Your task to perform on an android device: change the upload size in google photos Image 0: 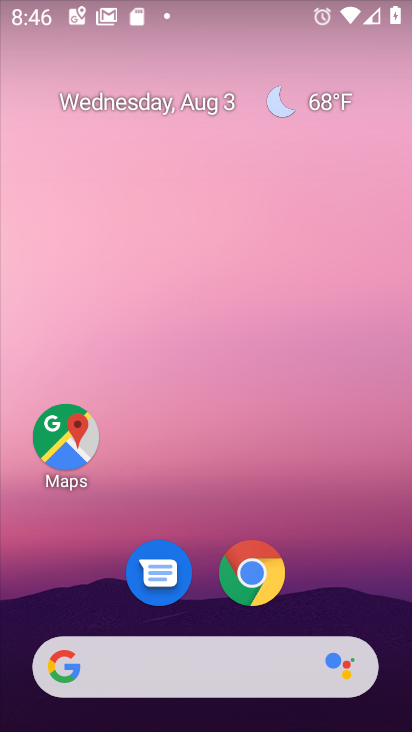
Step 0: drag from (341, 610) to (333, 1)
Your task to perform on an android device: change the upload size in google photos Image 1: 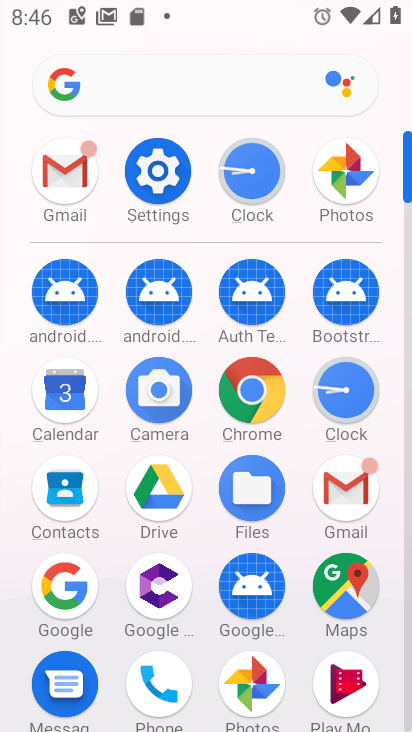
Step 1: click (344, 178)
Your task to perform on an android device: change the upload size in google photos Image 2: 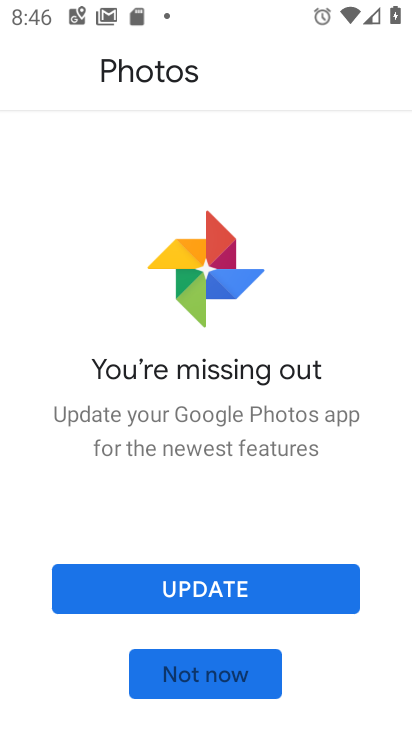
Step 2: click (205, 675)
Your task to perform on an android device: change the upload size in google photos Image 3: 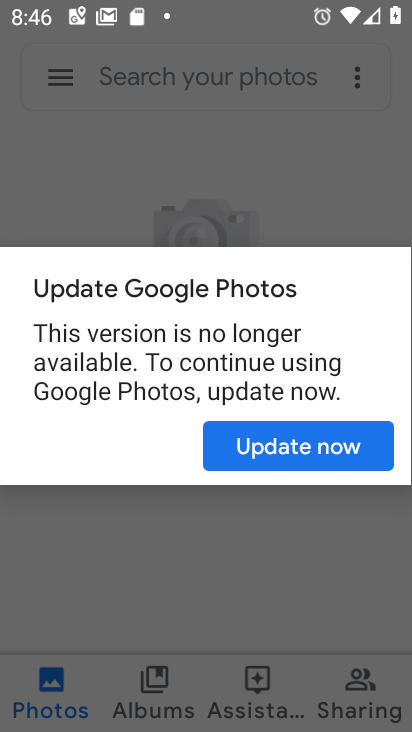
Step 3: click (279, 452)
Your task to perform on an android device: change the upload size in google photos Image 4: 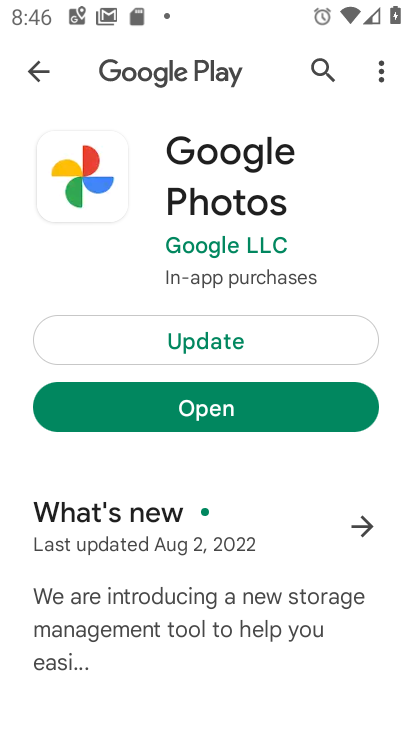
Step 4: click (218, 417)
Your task to perform on an android device: change the upload size in google photos Image 5: 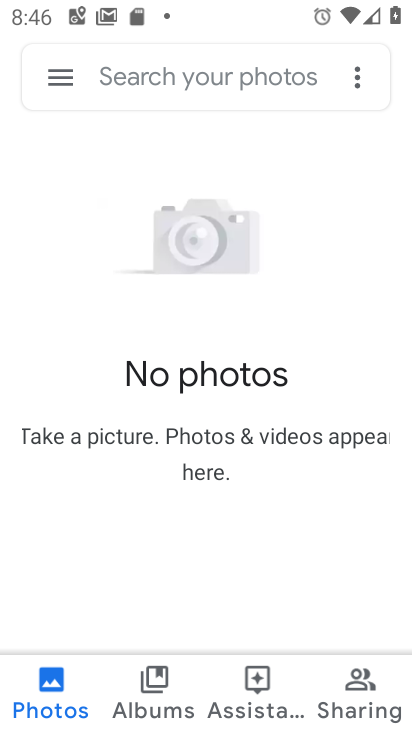
Step 5: click (61, 81)
Your task to perform on an android device: change the upload size in google photos Image 6: 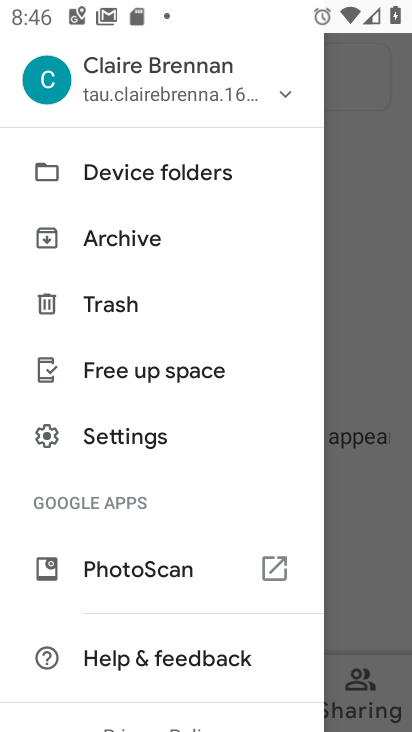
Step 6: click (128, 436)
Your task to perform on an android device: change the upload size in google photos Image 7: 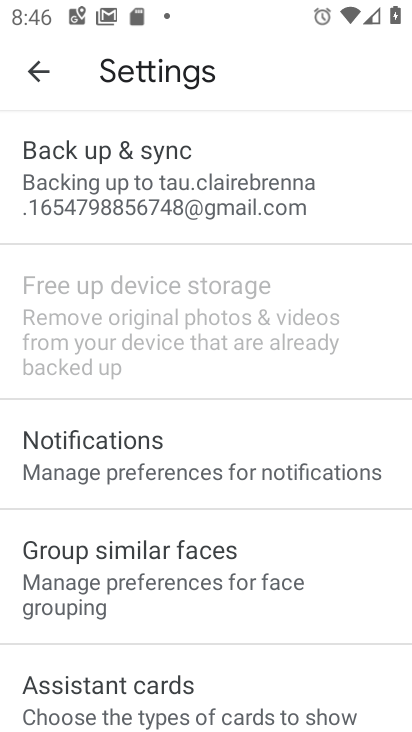
Step 7: click (114, 196)
Your task to perform on an android device: change the upload size in google photos Image 8: 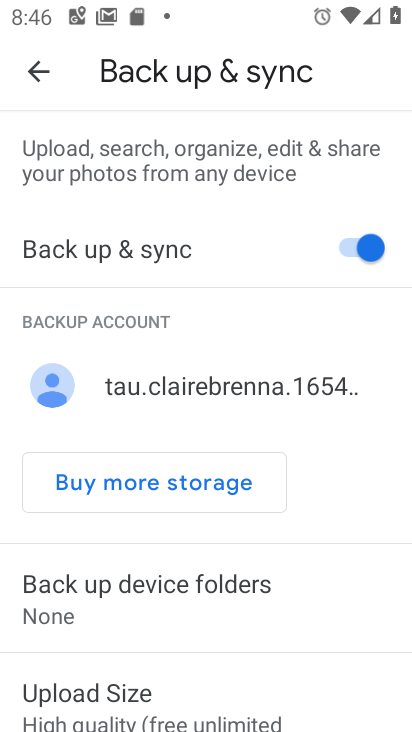
Step 8: drag from (305, 600) to (298, 317)
Your task to perform on an android device: change the upload size in google photos Image 9: 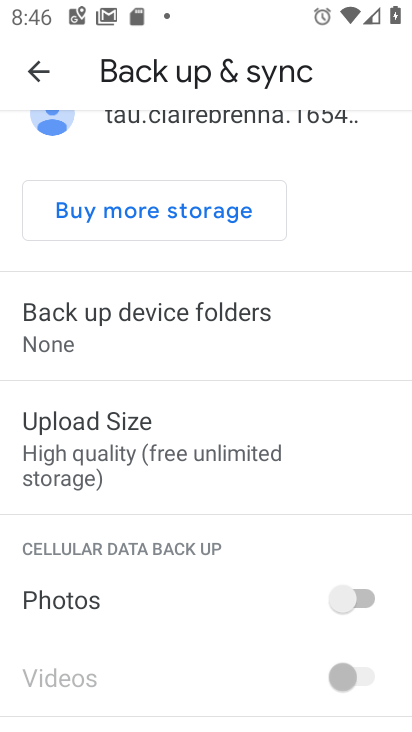
Step 9: click (107, 447)
Your task to perform on an android device: change the upload size in google photos Image 10: 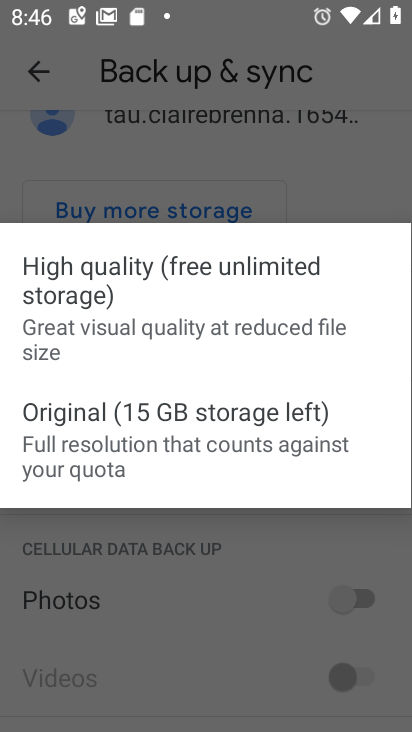
Step 10: click (89, 435)
Your task to perform on an android device: change the upload size in google photos Image 11: 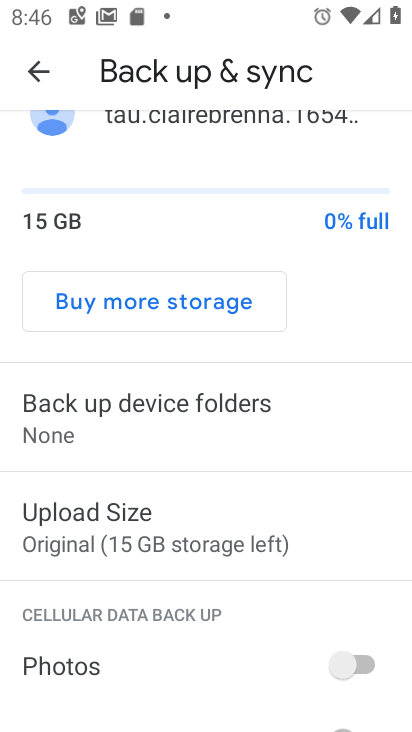
Step 11: task complete